Your task to perform on an android device: set the stopwatch Image 0: 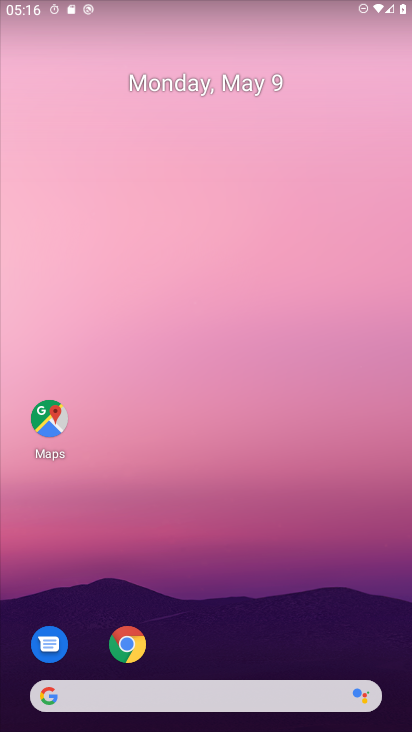
Step 0: press home button
Your task to perform on an android device: set the stopwatch Image 1: 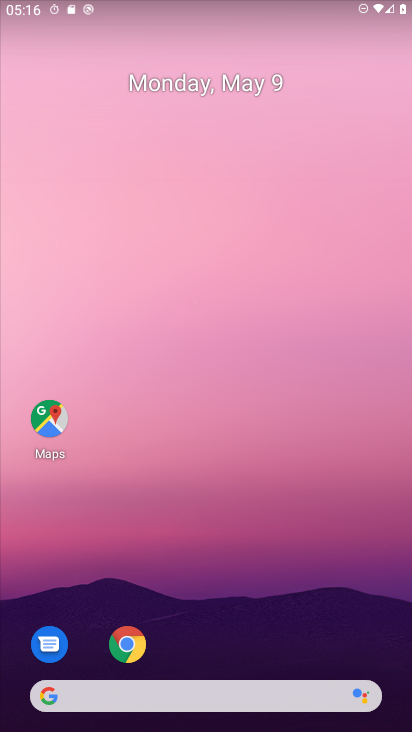
Step 1: drag from (197, 621) to (177, 86)
Your task to perform on an android device: set the stopwatch Image 2: 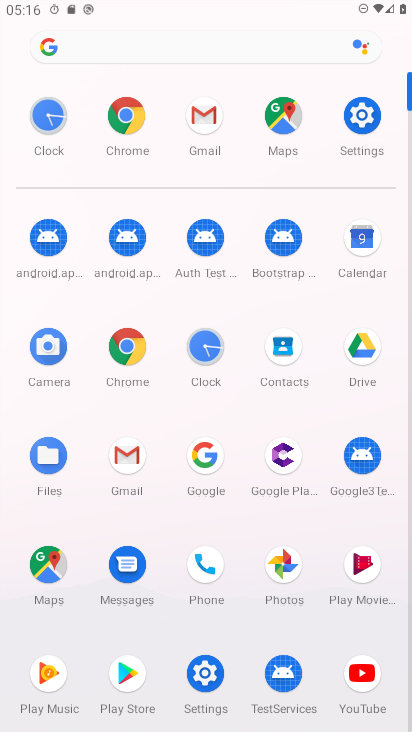
Step 2: click (203, 344)
Your task to perform on an android device: set the stopwatch Image 3: 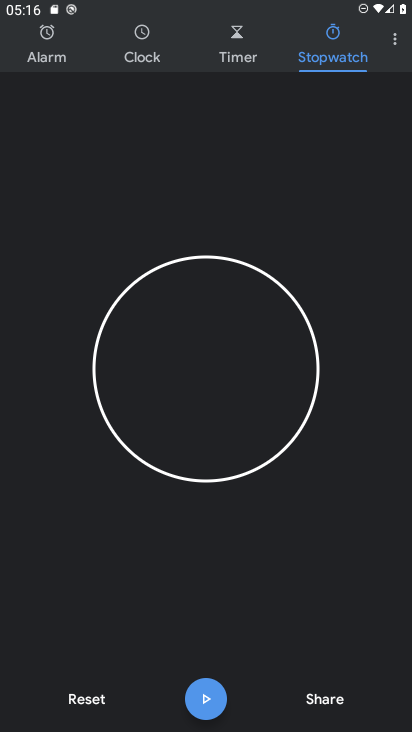
Step 3: click (209, 694)
Your task to perform on an android device: set the stopwatch Image 4: 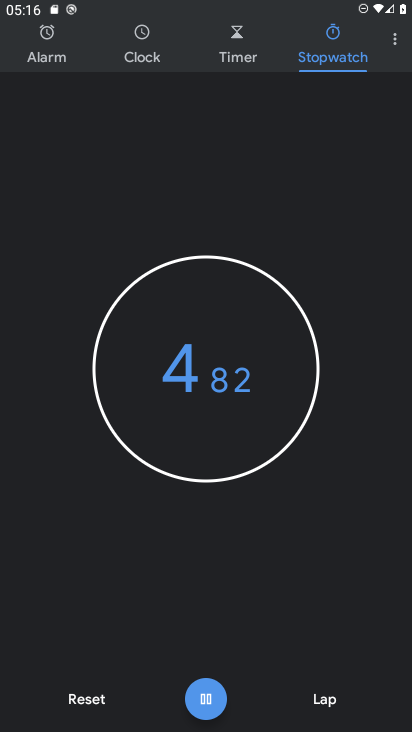
Step 4: click (208, 690)
Your task to perform on an android device: set the stopwatch Image 5: 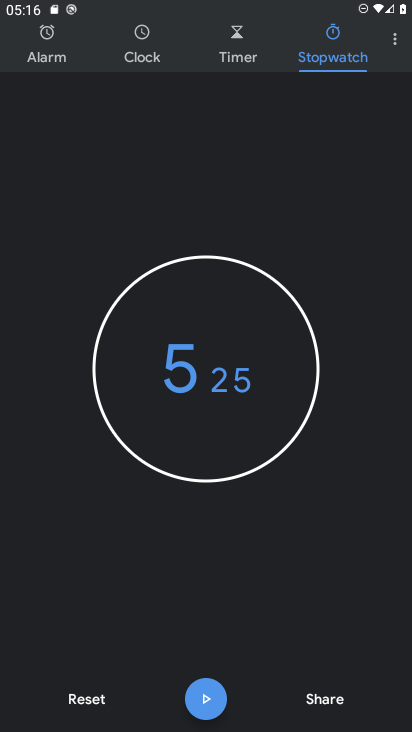
Step 5: task complete